Your task to perform on an android device: make emails show in primary in the gmail app Image 0: 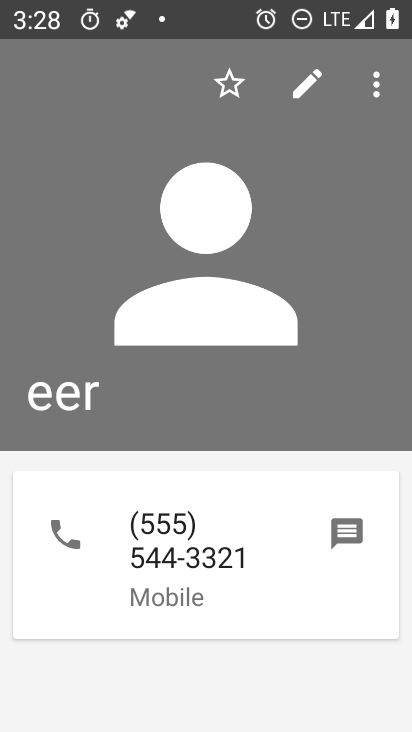
Step 0: press home button
Your task to perform on an android device: make emails show in primary in the gmail app Image 1: 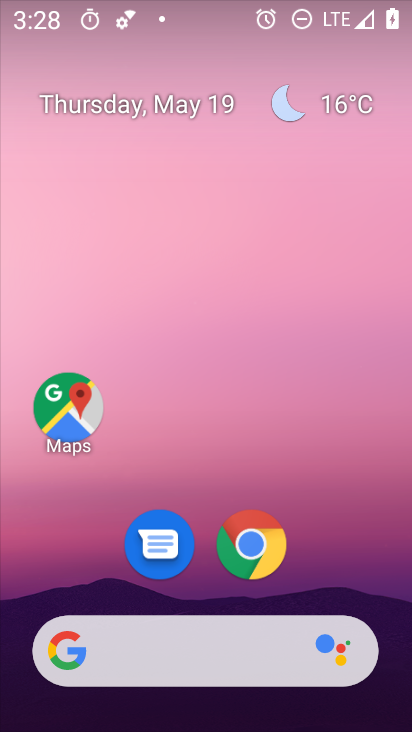
Step 1: drag from (337, 567) to (345, 146)
Your task to perform on an android device: make emails show in primary in the gmail app Image 2: 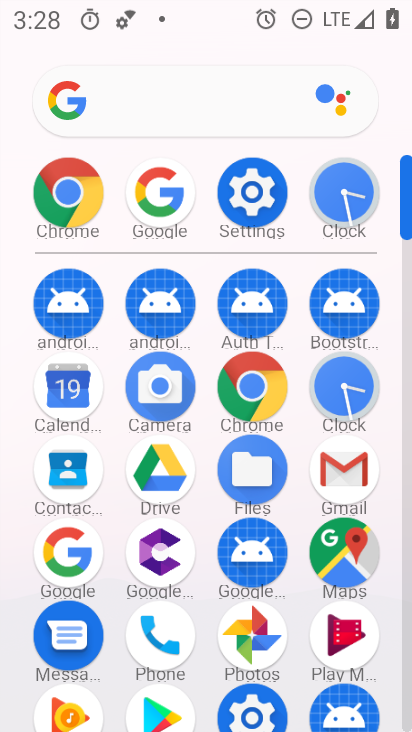
Step 2: click (353, 478)
Your task to perform on an android device: make emails show in primary in the gmail app Image 3: 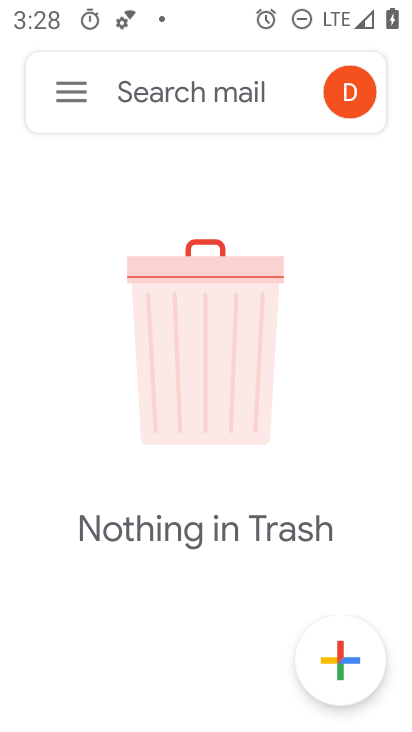
Step 3: click (72, 85)
Your task to perform on an android device: make emails show in primary in the gmail app Image 4: 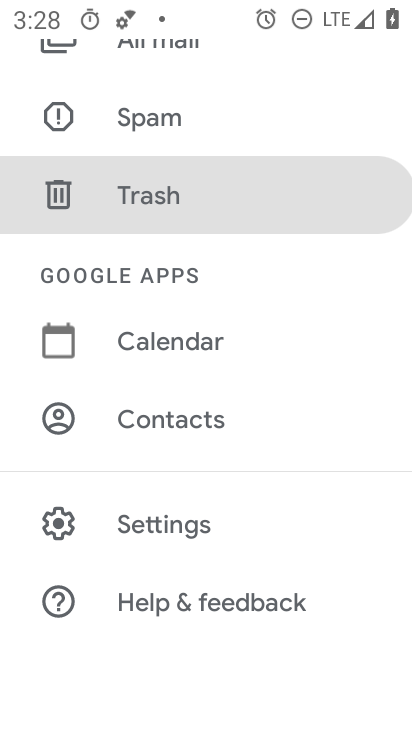
Step 4: click (217, 517)
Your task to perform on an android device: make emails show in primary in the gmail app Image 5: 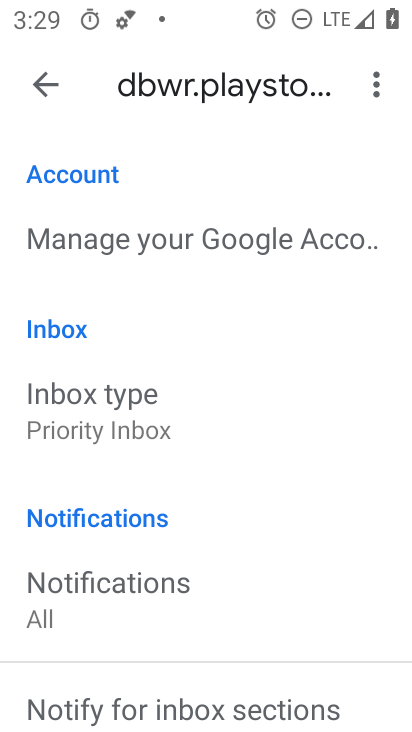
Step 5: click (156, 405)
Your task to perform on an android device: make emails show in primary in the gmail app Image 6: 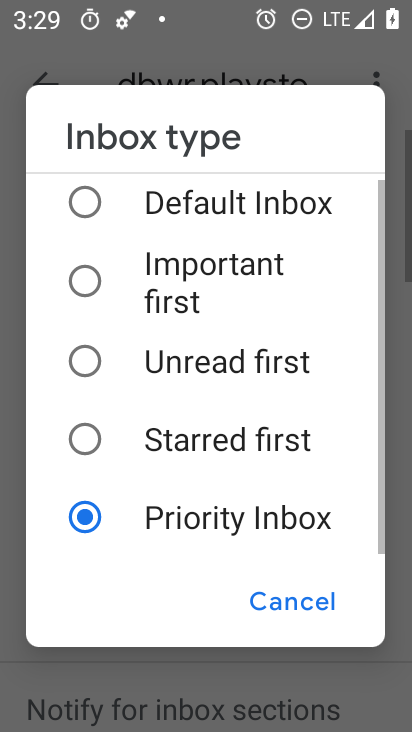
Step 6: click (112, 201)
Your task to perform on an android device: make emails show in primary in the gmail app Image 7: 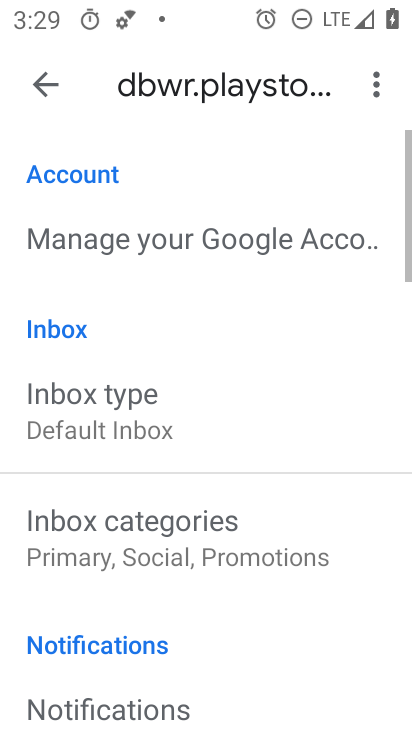
Step 7: click (162, 513)
Your task to perform on an android device: make emails show in primary in the gmail app Image 8: 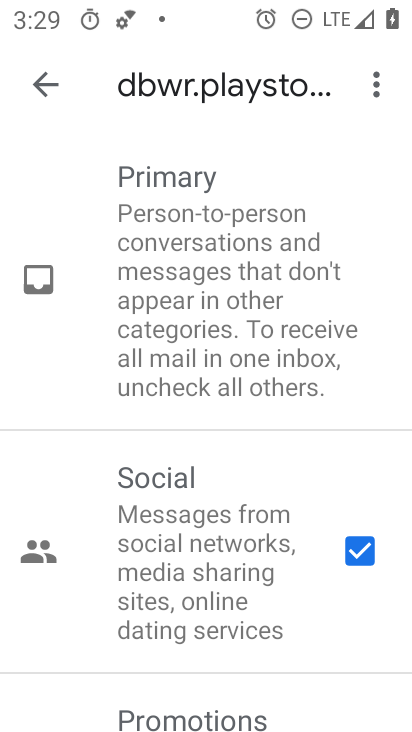
Step 8: click (382, 549)
Your task to perform on an android device: make emails show in primary in the gmail app Image 9: 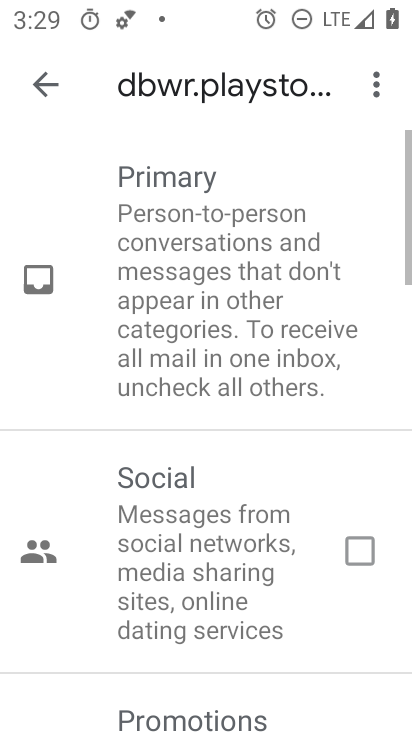
Step 9: drag from (303, 622) to (251, 248)
Your task to perform on an android device: make emails show in primary in the gmail app Image 10: 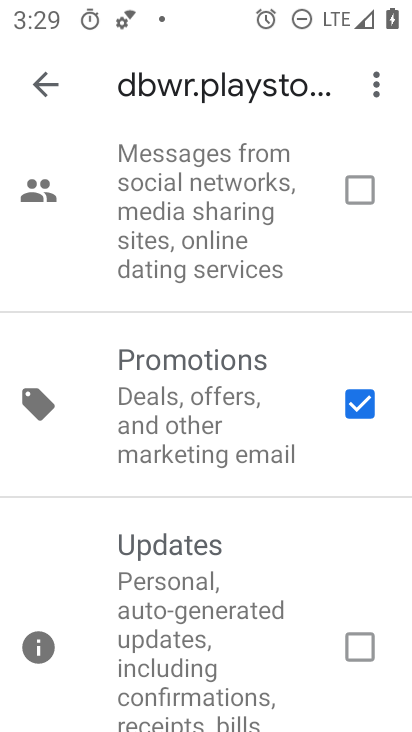
Step 10: click (368, 408)
Your task to perform on an android device: make emails show in primary in the gmail app Image 11: 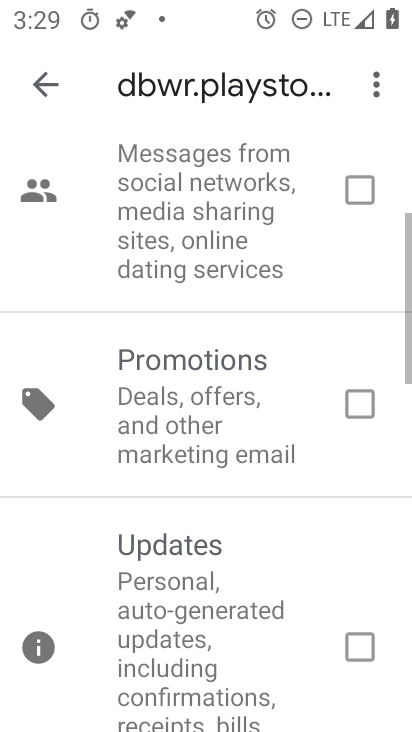
Step 11: task complete